Your task to perform on an android device: Go to privacy settings Image 0: 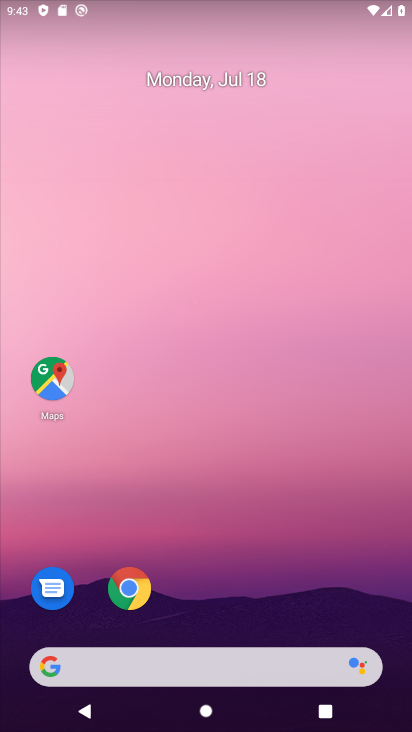
Step 0: press home button
Your task to perform on an android device: Go to privacy settings Image 1: 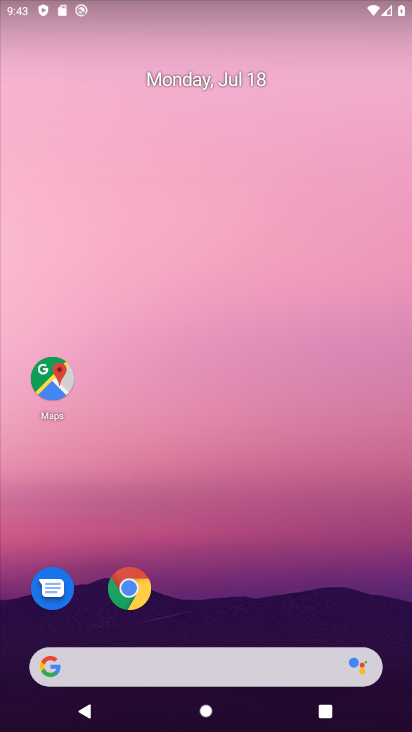
Step 1: drag from (228, 618) to (293, 115)
Your task to perform on an android device: Go to privacy settings Image 2: 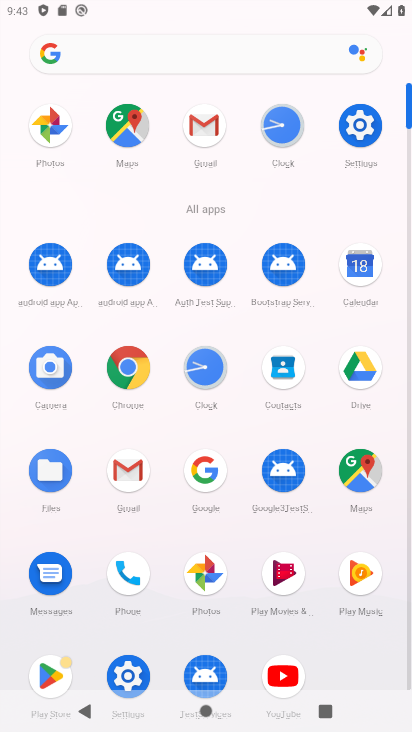
Step 2: click (363, 126)
Your task to perform on an android device: Go to privacy settings Image 3: 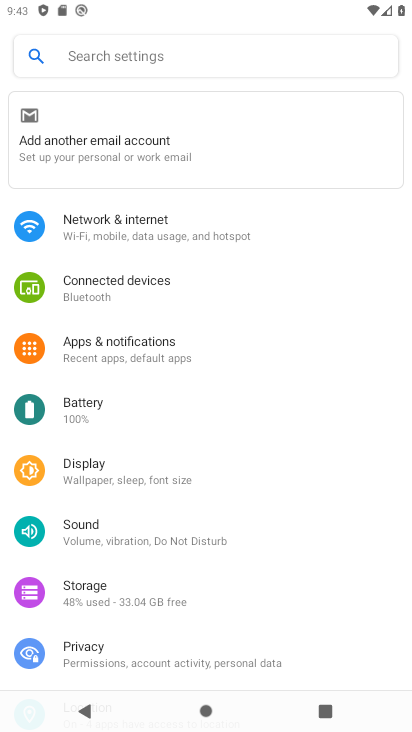
Step 3: click (102, 657)
Your task to perform on an android device: Go to privacy settings Image 4: 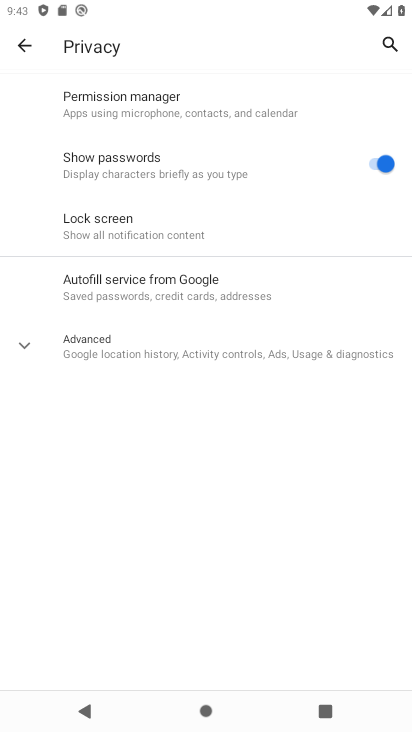
Step 4: task complete